Your task to perform on an android device: Show me productivity apps on the Play Store Image 0: 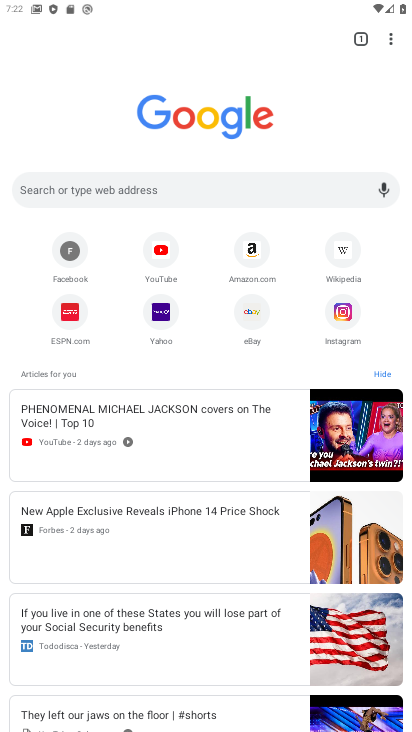
Step 0: press home button
Your task to perform on an android device: Show me productivity apps on the Play Store Image 1: 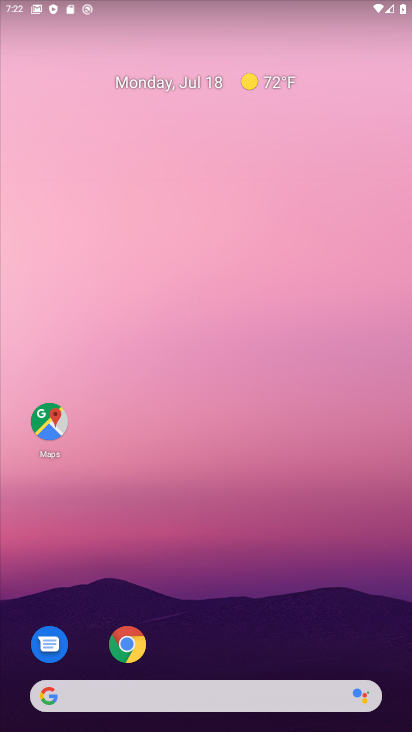
Step 1: drag from (381, 620) to (261, 21)
Your task to perform on an android device: Show me productivity apps on the Play Store Image 2: 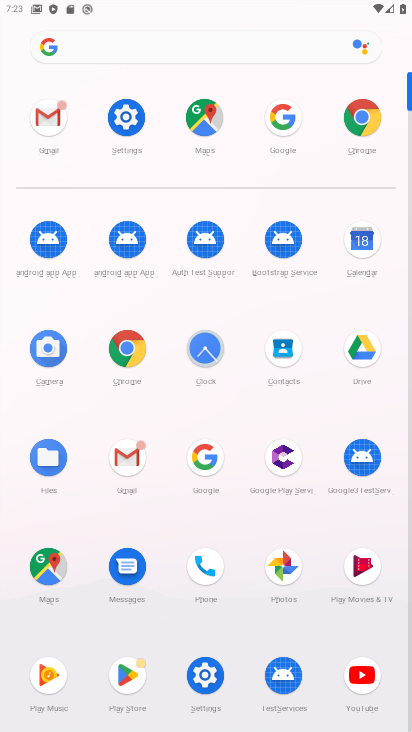
Step 2: click (127, 668)
Your task to perform on an android device: Show me productivity apps on the Play Store Image 3: 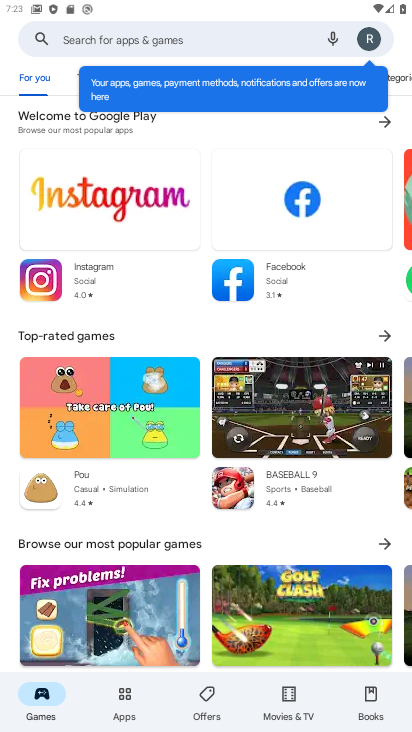
Step 3: task complete